Your task to perform on an android device: change timer sound Image 0: 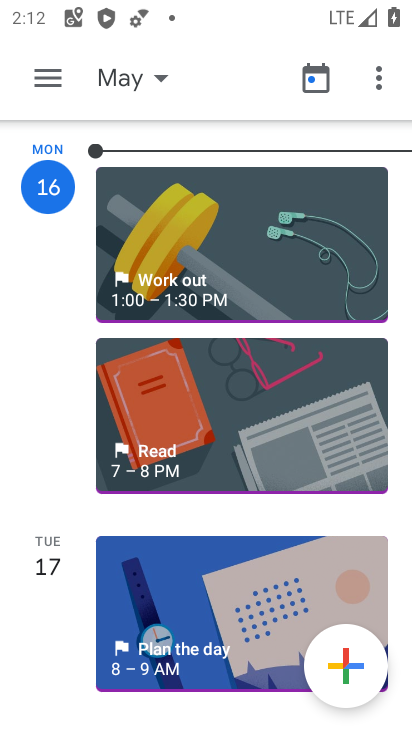
Step 0: press home button
Your task to perform on an android device: change timer sound Image 1: 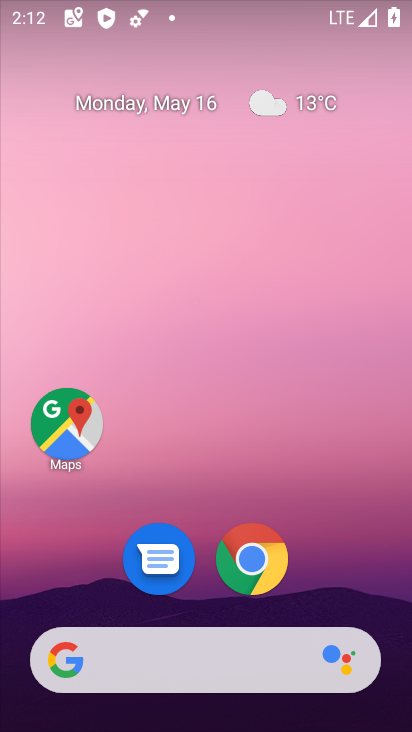
Step 1: drag from (205, 616) to (277, 164)
Your task to perform on an android device: change timer sound Image 2: 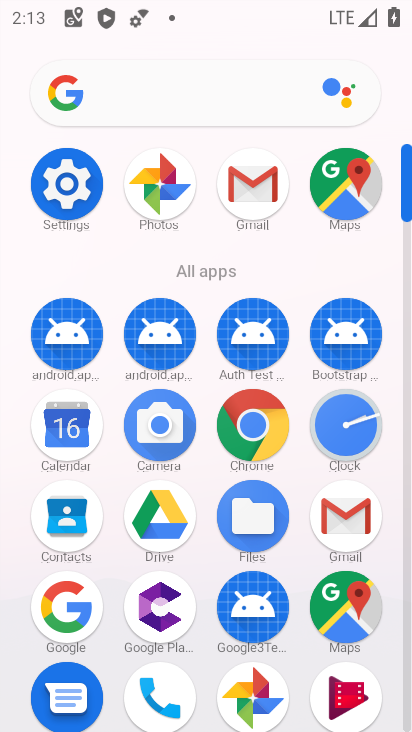
Step 2: click (69, 191)
Your task to perform on an android device: change timer sound Image 3: 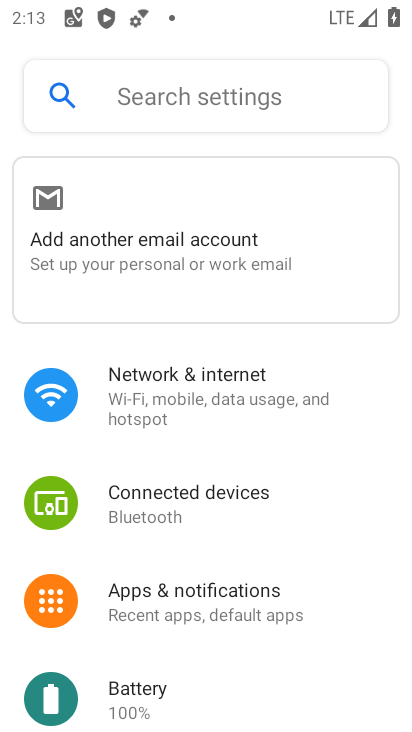
Step 3: press back button
Your task to perform on an android device: change timer sound Image 4: 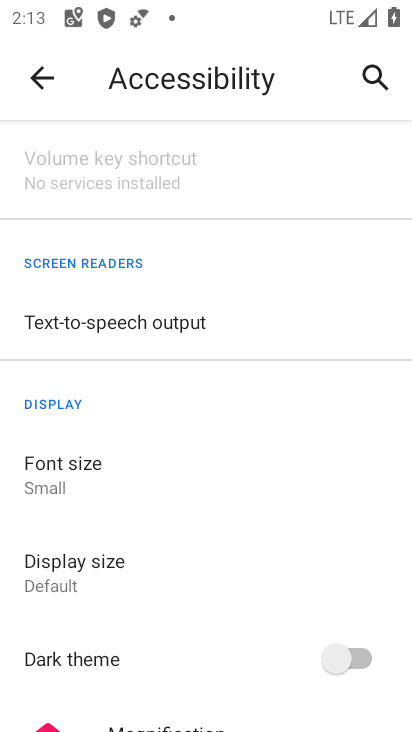
Step 4: press back button
Your task to perform on an android device: change timer sound Image 5: 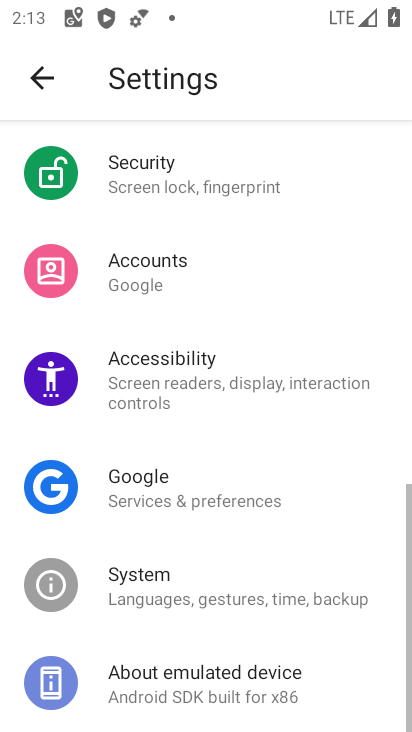
Step 5: press back button
Your task to perform on an android device: change timer sound Image 6: 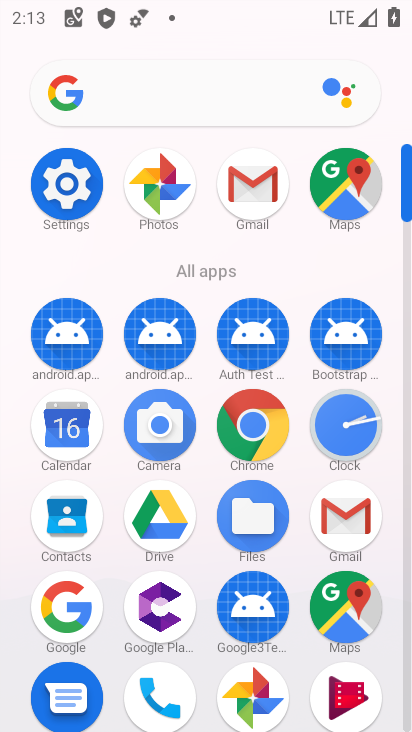
Step 6: click (346, 433)
Your task to perform on an android device: change timer sound Image 7: 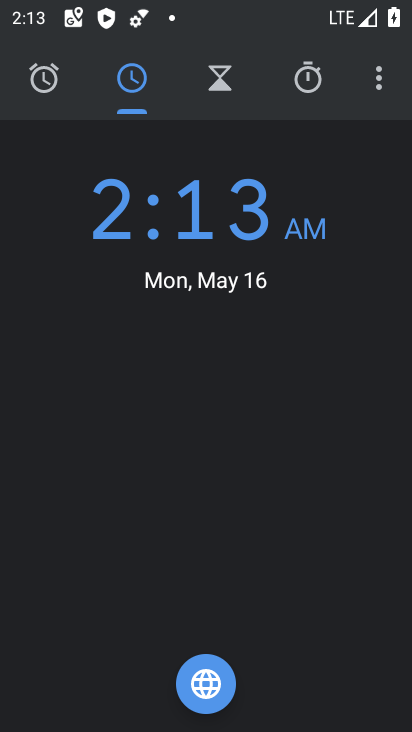
Step 7: click (386, 76)
Your task to perform on an android device: change timer sound Image 8: 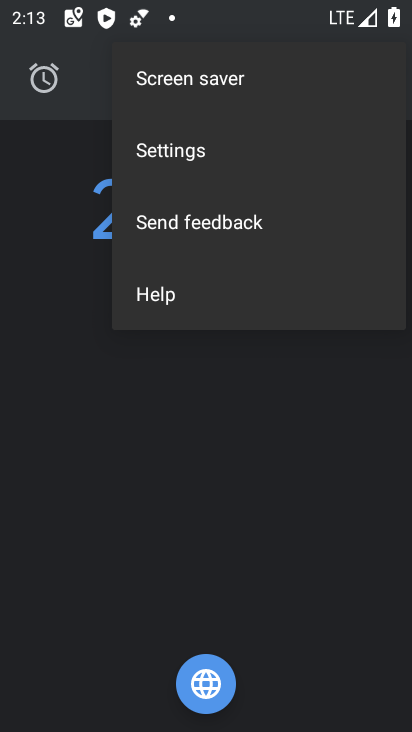
Step 8: click (241, 154)
Your task to perform on an android device: change timer sound Image 9: 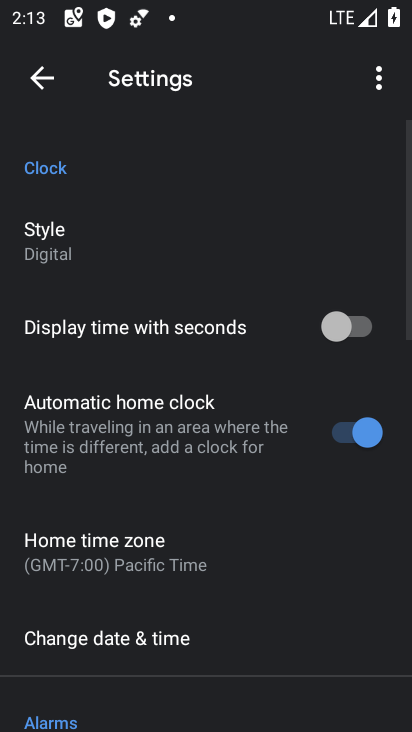
Step 9: drag from (182, 605) to (251, 169)
Your task to perform on an android device: change timer sound Image 10: 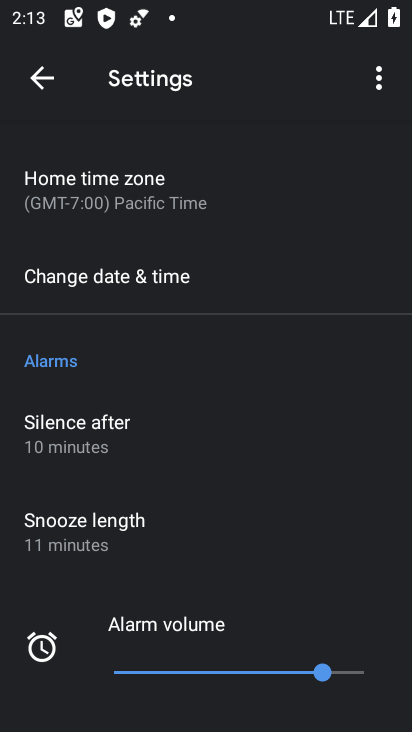
Step 10: drag from (166, 606) to (274, 113)
Your task to perform on an android device: change timer sound Image 11: 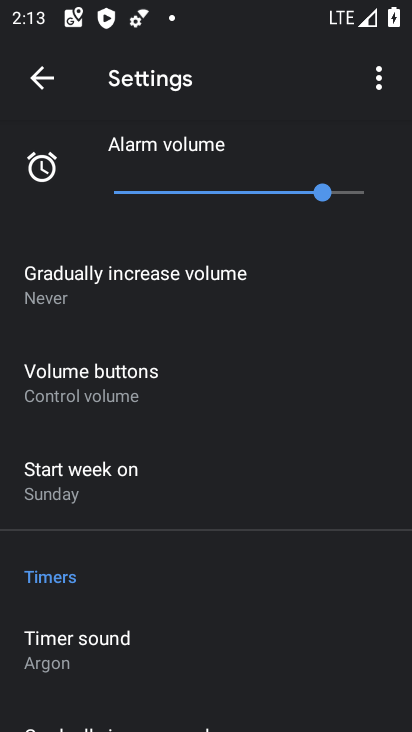
Step 11: click (139, 658)
Your task to perform on an android device: change timer sound Image 12: 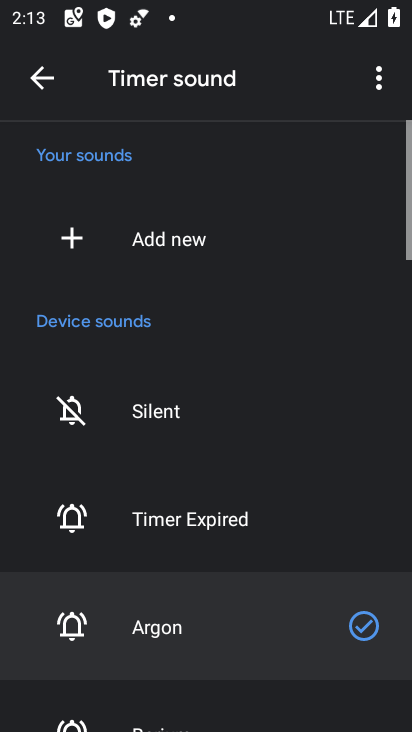
Step 12: click (143, 408)
Your task to perform on an android device: change timer sound Image 13: 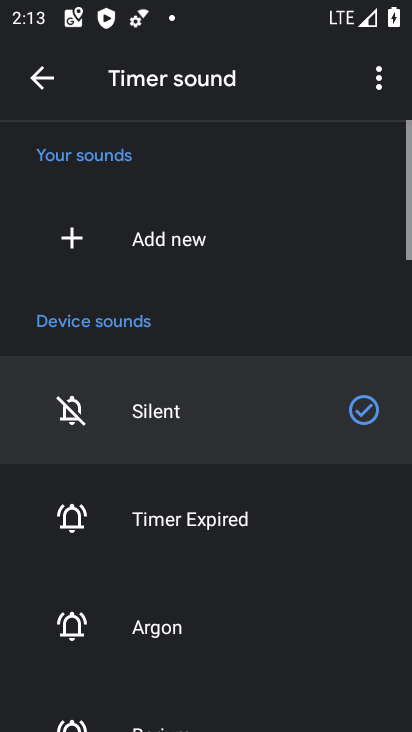
Step 13: click (185, 519)
Your task to perform on an android device: change timer sound Image 14: 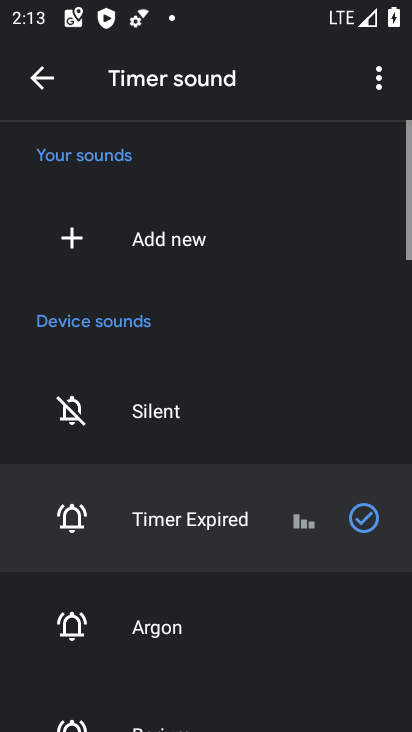
Step 14: task complete